Your task to perform on an android device: Open battery settings Image 0: 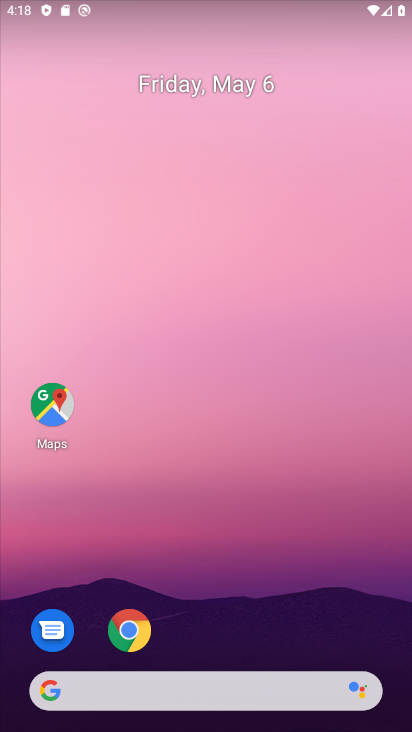
Step 0: drag from (205, 594) to (331, 159)
Your task to perform on an android device: Open battery settings Image 1: 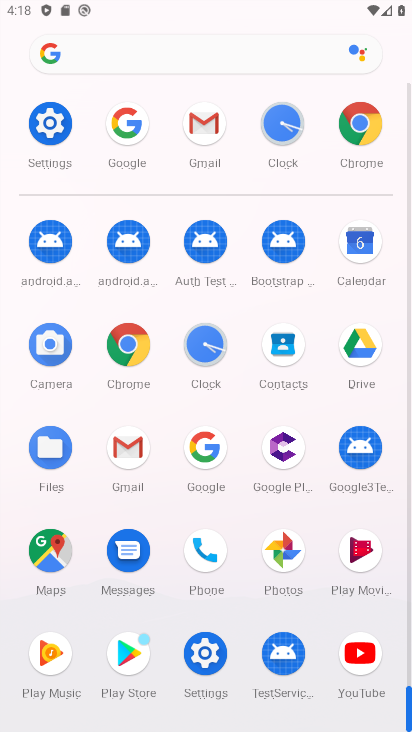
Step 1: click (46, 122)
Your task to perform on an android device: Open battery settings Image 2: 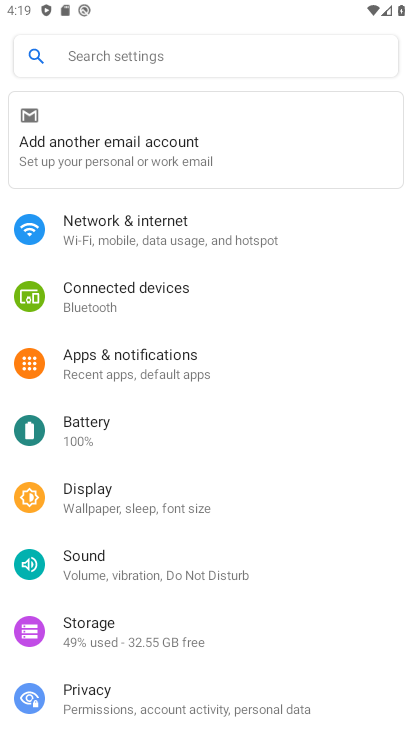
Step 2: drag from (137, 632) to (137, 537)
Your task to perform on an android device: Open battery settings Image 3: 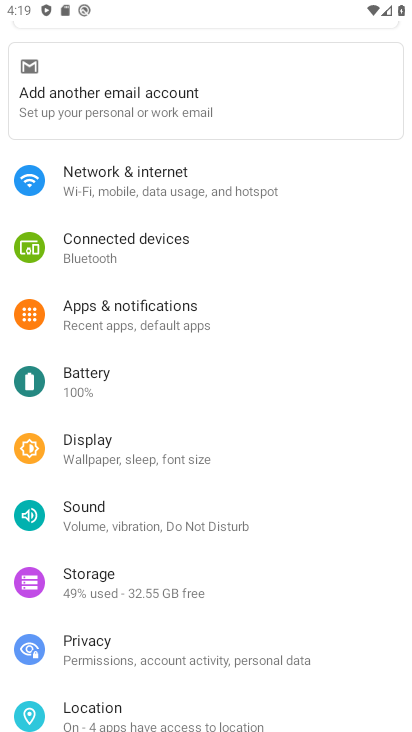
Step 3: click (169, 383)
Your task to perform on an android device: Open battery settings Image 4: 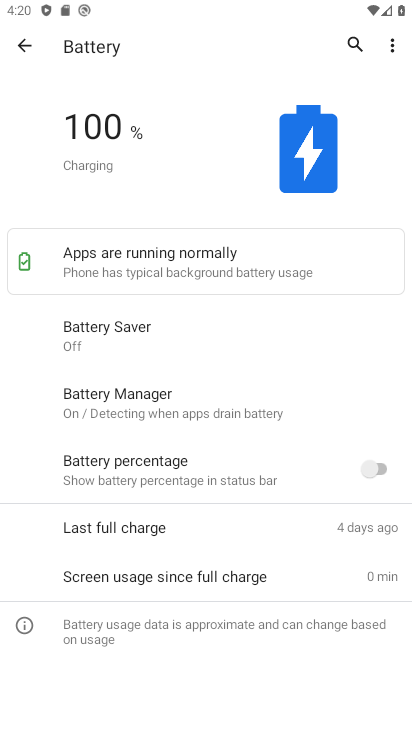
Step 4: task complete